Your task to perform on an android device: Go to Yahoo.com Image 0: 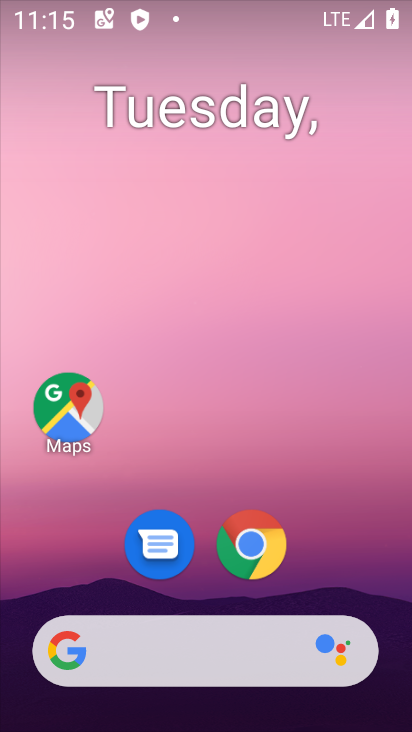
Step 0: drag from (397, 638) to (286, 67)
Your task to perform on an android device: Go to Yahoo.com Image 1: 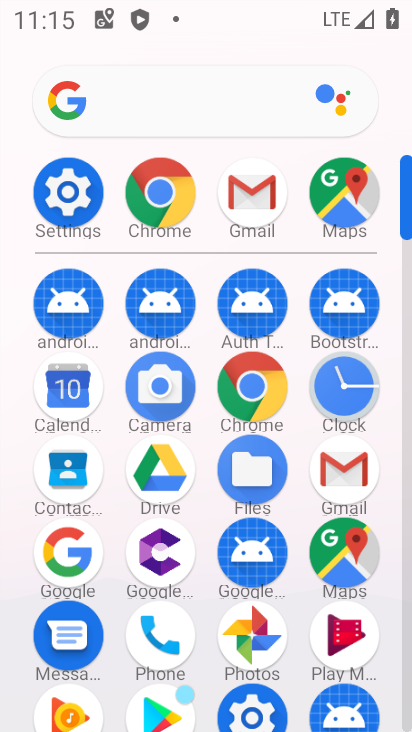
Step 1: click (248, 410)
Your task to perform on an android device: Go to Yahoo.com Image 2: 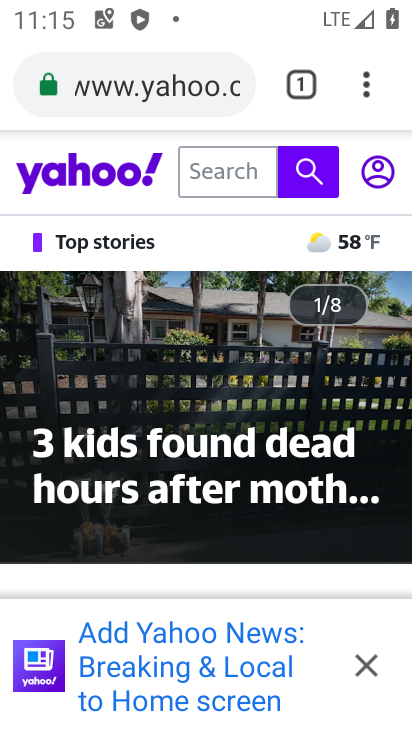
Step 2: task complete